Your task to perform on an android device: Go to Yahoo.com Image 0: 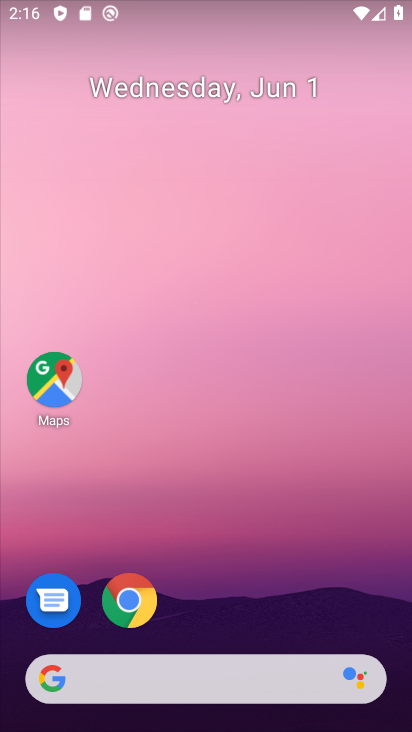
Step 0: click (234, 337)
Your task to perform on an android device: Go to Yahoo.com Image 1: 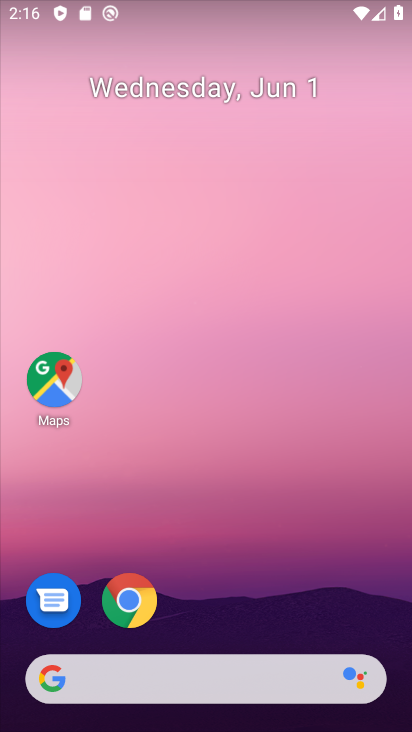
Step 1: drag from (204, 713) to (126, 191)
Your task to perform on an android device: Go to Yahoo.com Image 2: 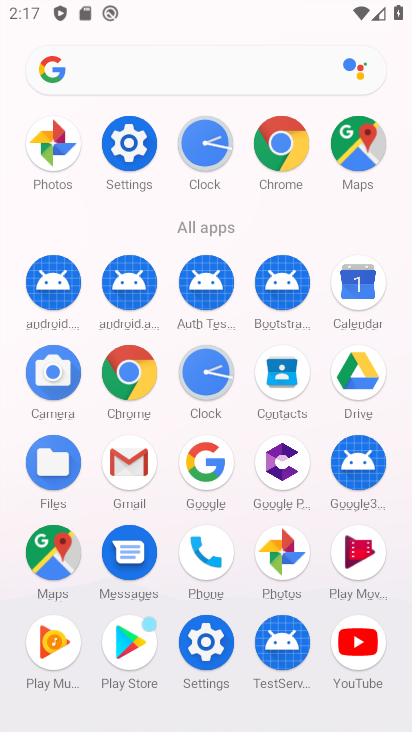
Step 2: click (278, 136)
Your task to perform on an android device: Go to Yahoo.com Image 3: 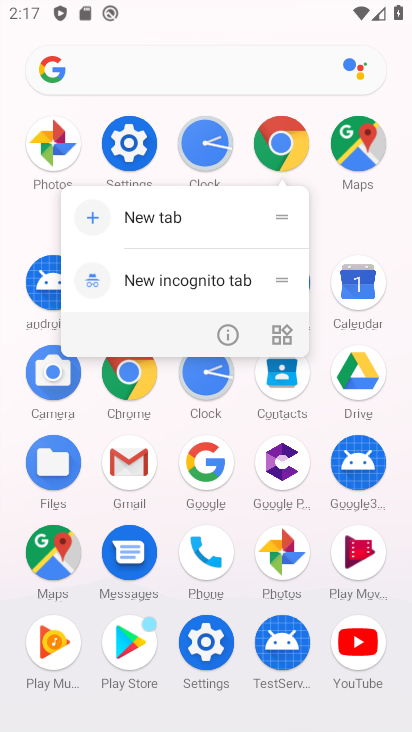
Step 3: click (280, 132)
Your task to perform on an android device: Go to Yahoo.com Image 4: 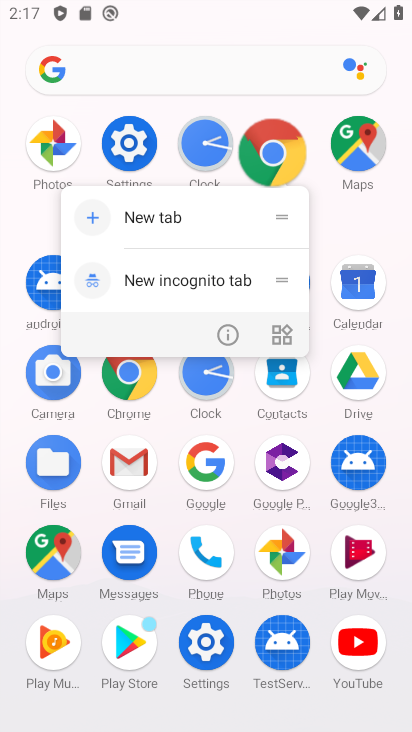
Step 4: click (270, 151)
Your task to perform on an android device: Go to Yahoo.com Image 5: 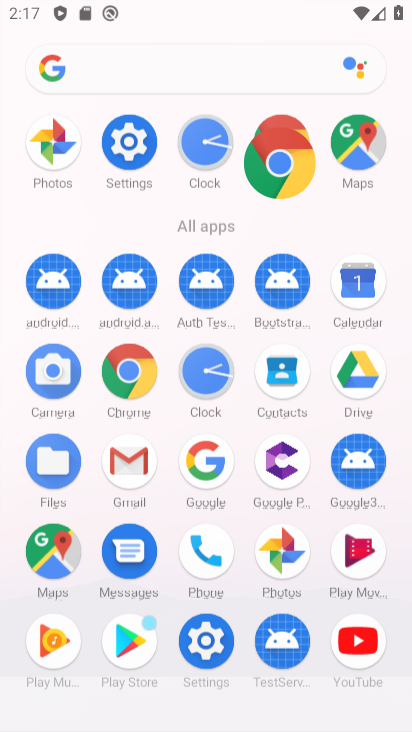
Step 5: click (266, 145)
Your task to perform on an android device: Go to Yahoo.com Image 6: 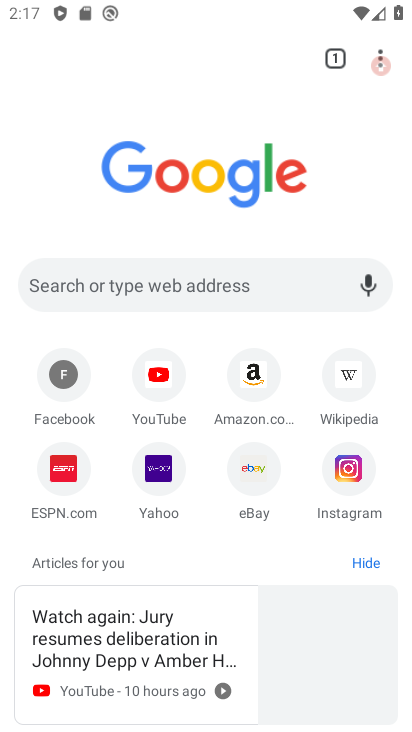
Step 6: click (277, 151)
Your task to perform on an android device: Go to Yahoo.com Image 7: 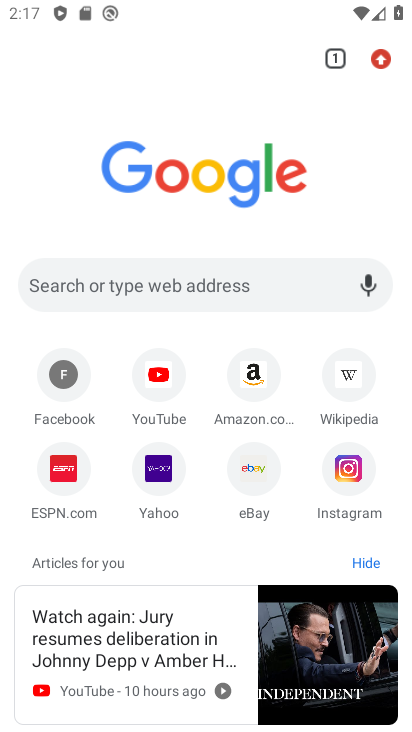
Step 7: click (161, 454)
Your task to perform on an android device: Go to Yahoo.com Image 8: 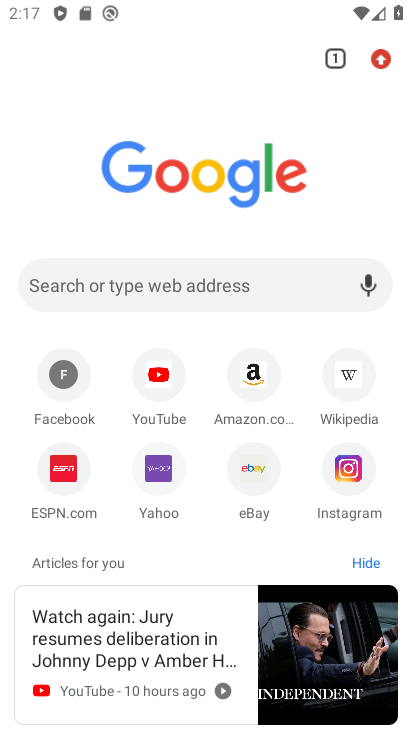
Step 8: click (160, 480)
Your task to perform on an android device: Go to Yahoo.com Image 9: 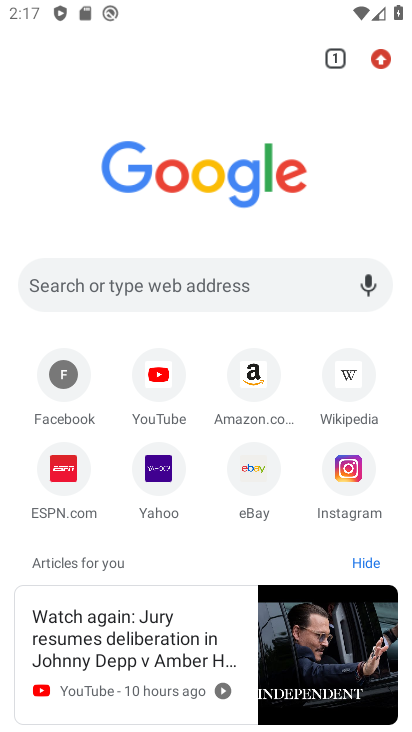
Step 9: click (161, 481)
Your task to perform on an android device: Go to Yahoo.com Image 10: 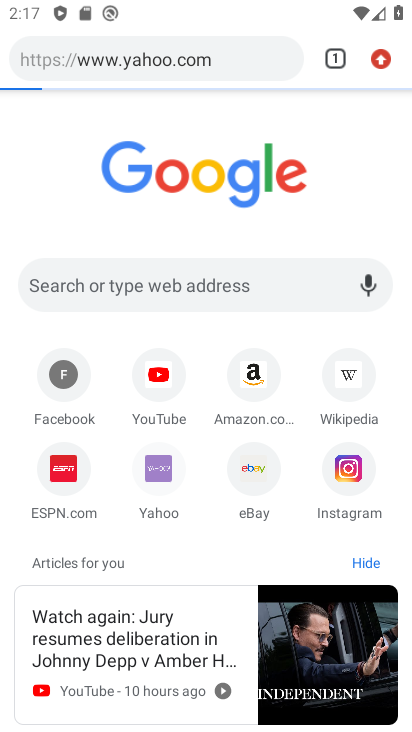
Step 10: click (166, 478)
Your task to perform on an android device: Go to Yahoo.com Image 11: 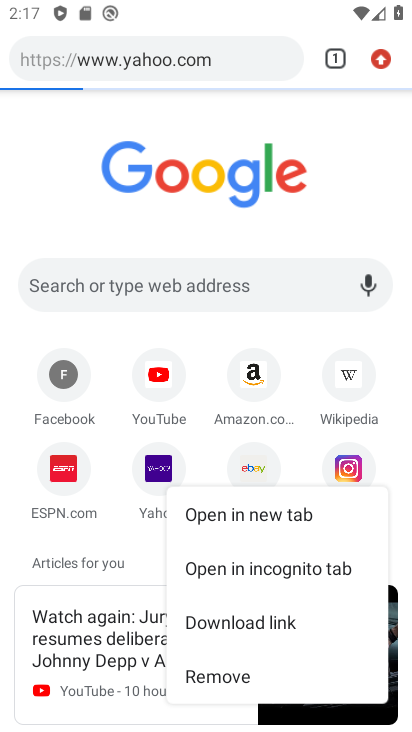
Step 11: click (167, 478)
Your task to perform on an android device: Go to Yahoo.com Image 12: 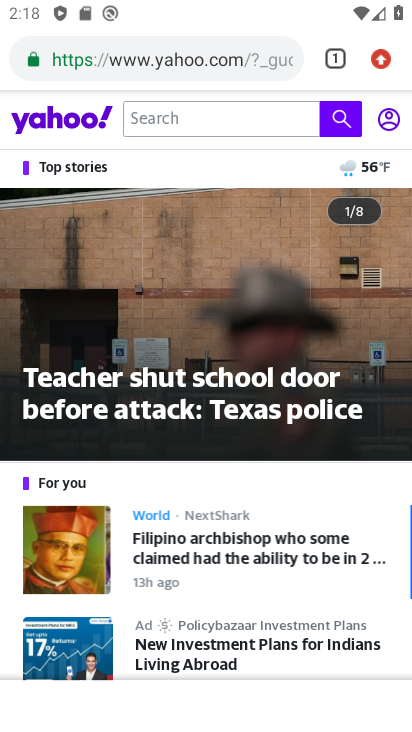
Step 12: task complete